Your task to perform on an android device: Open calendar and show me the third week of next month Image 0: 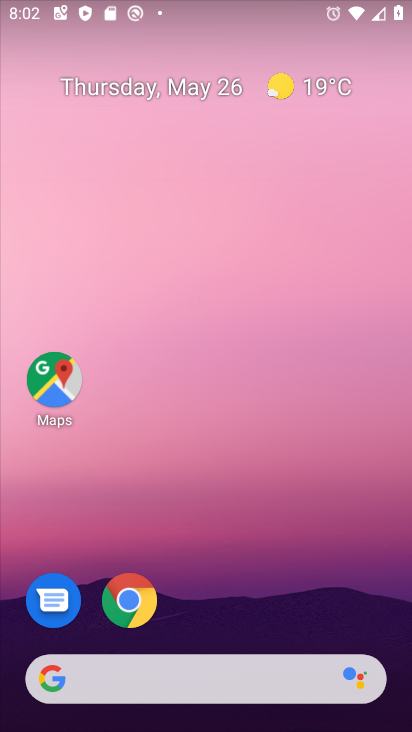
Step 0: press home button
Your task to perform on an android device: Open calendar and show me the third week of next month Image 1: 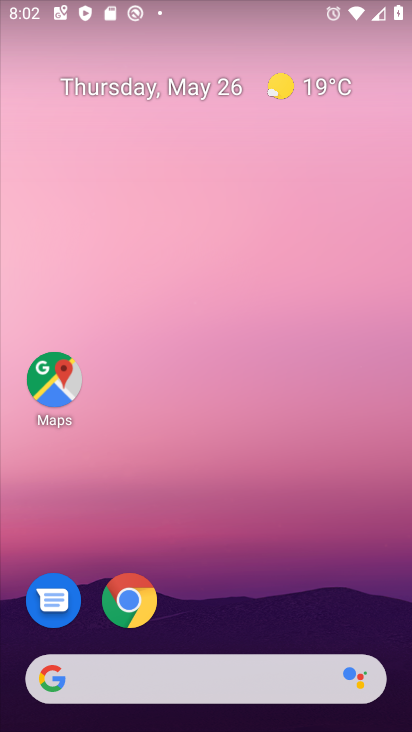
Step 1: drag from (177, 376) to (158, 288)
Your task to perform on an android device: Open calendar and show me the third week of next month Image 2: 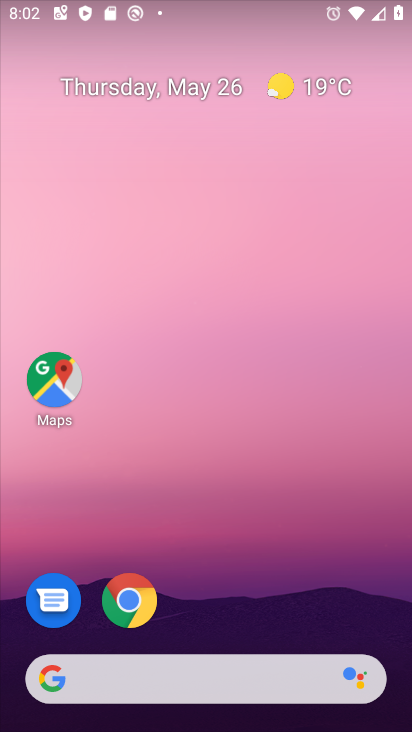
Step 2: drag from (290, 619) to (264, 231)
Your task to perform on an android device: Open calendar and show me the third week of next month Image 3: 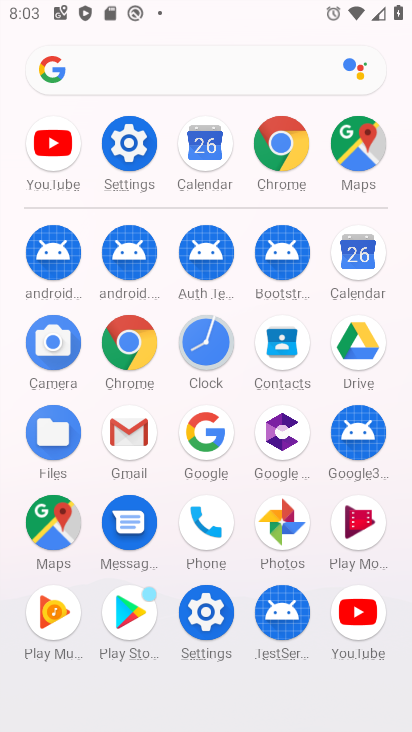
Step 3: click (340, 260)
Your task to perform on an android device: Open calendar and show me the third week of next month Image 4: 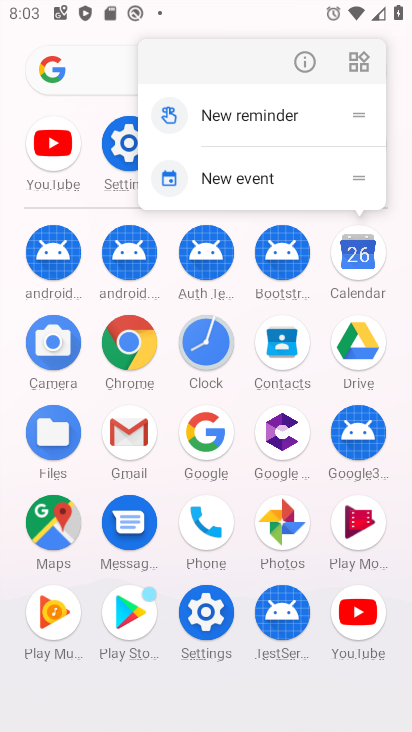
Step 4: click (358, 258)
Your task to perform on an android device: Open calendar and show me the third week of next month Image 5: 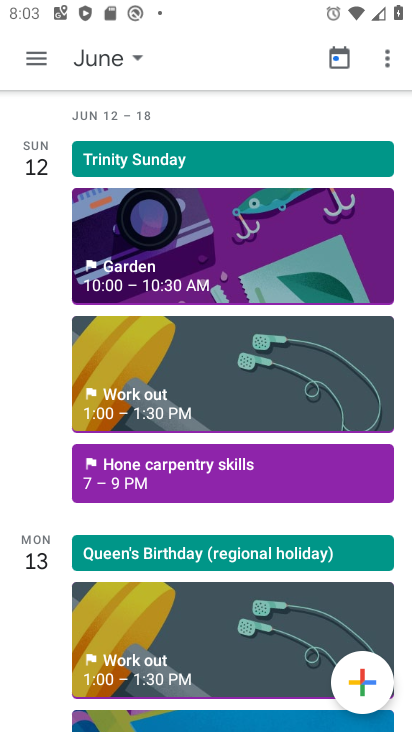
Step 5: task complete